Your task to perform on an android device: Open the calendar and show me this week's events Image 0: 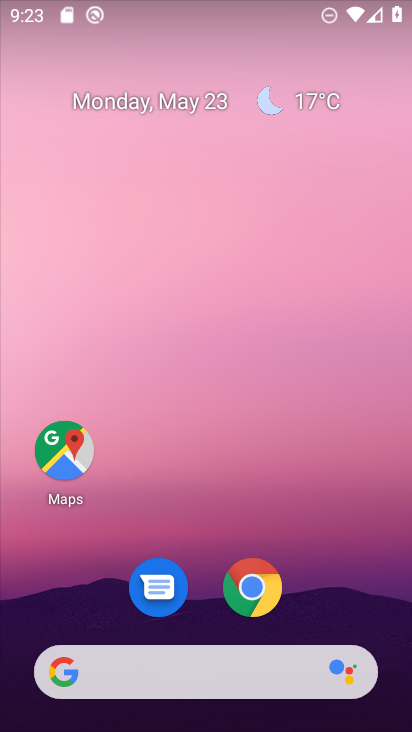
Step 0: drag from (212, 503) to (255, 55)
Your task to perform on an android device: Open the calendar and show me this week's events Image 1: 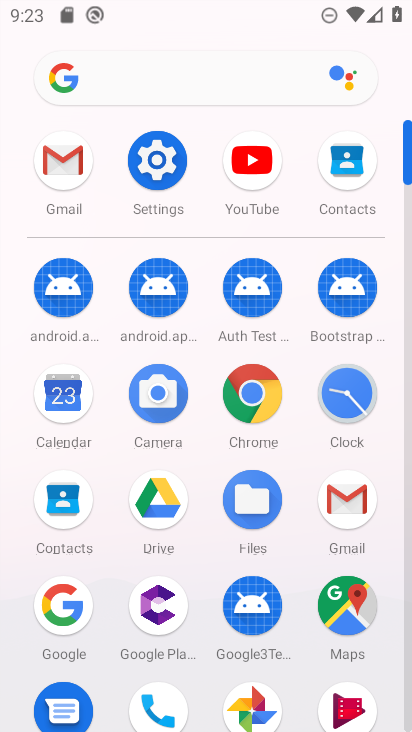
Step 1: click (51, 389)
Your task to perform on an android device: Open the calendar and show me this week's events Image 2: 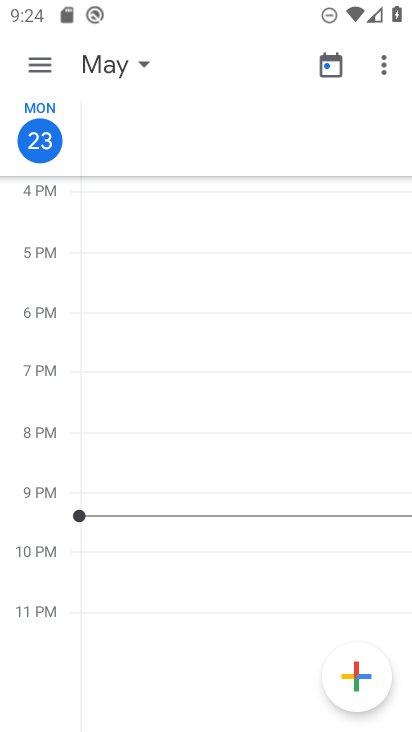
Step 2: click (38, 51)
Your task to perform on an android device: Open the calendar and show me this week's events Image 3: 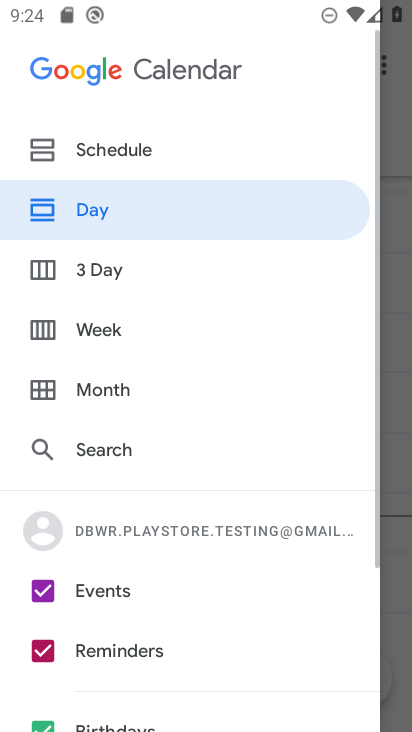
Step 3: click (130, 155)
Your task to perform on an android device: Open the calendar and show me this week's events Image 4: 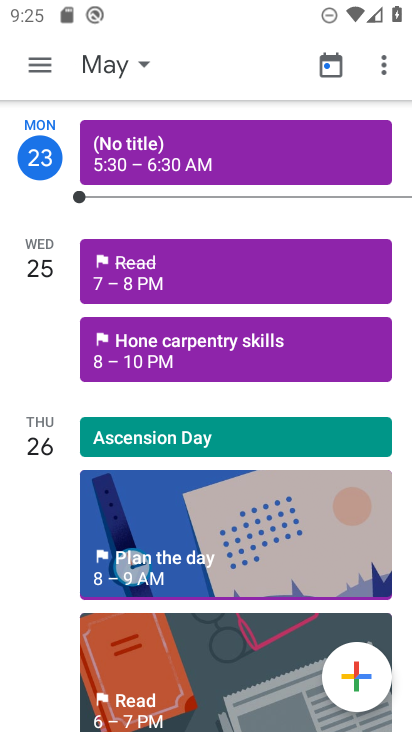
Step 4: click (172, 351)
Your task to perform on an android device: Open the calendar and show me this week's events Image 5: 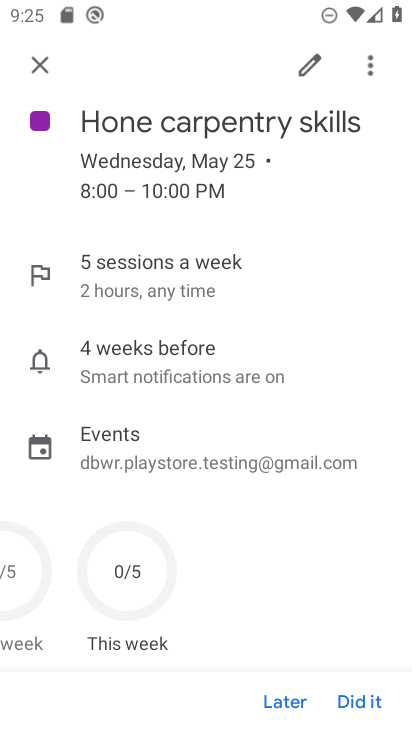
Step 5: task complete